Your task to perform on an android device: Open the stopwatch Image 0: 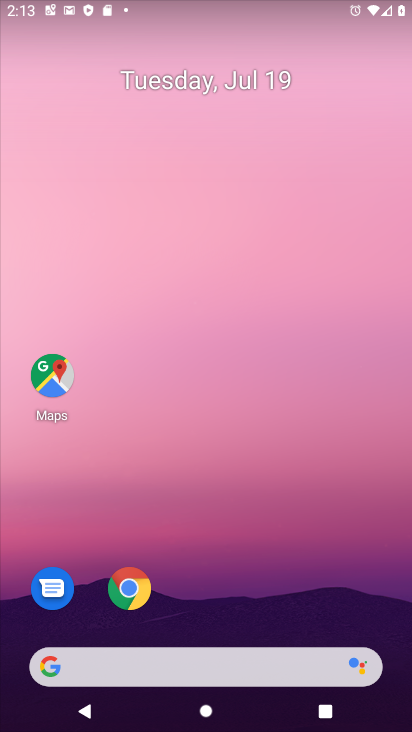
Step 0: drag from (351, 651) to (226, 61)
Your task to perform on an android device: Open the stopwatch Image 1: 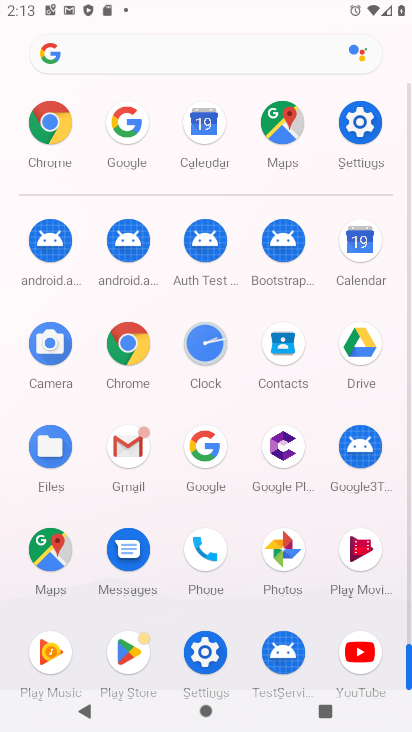
Step 1: click (196, 365)
Your task to perform on an android device: Open the stopwatch Image 2: 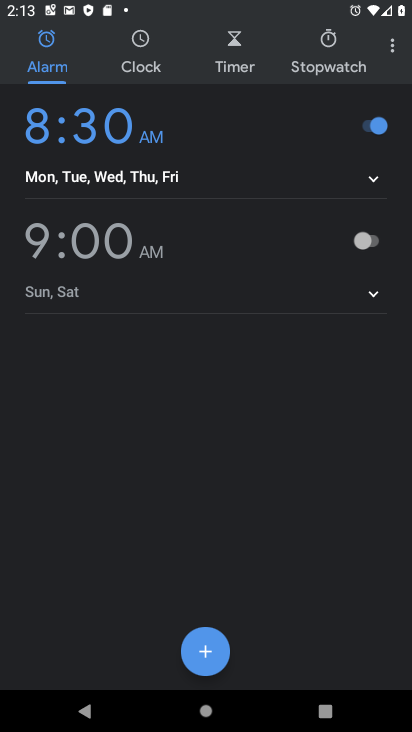
Step 2: click (314, 55)
Your task to perform on an android device: Open the stopwatch Image 3: 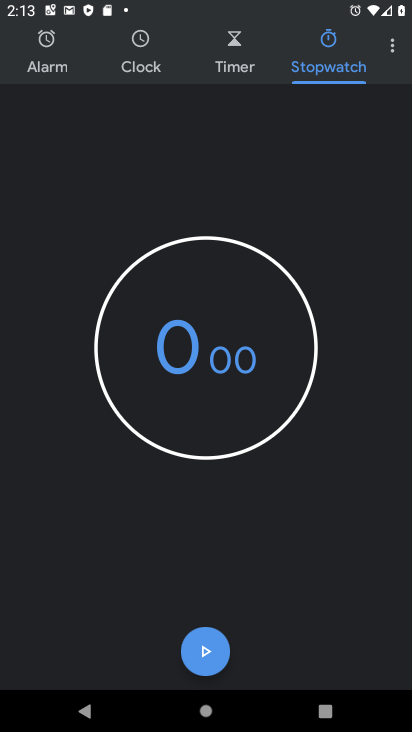
Step 3: task complete